Your task to perform on an android device: Go to internet settings Image 0: 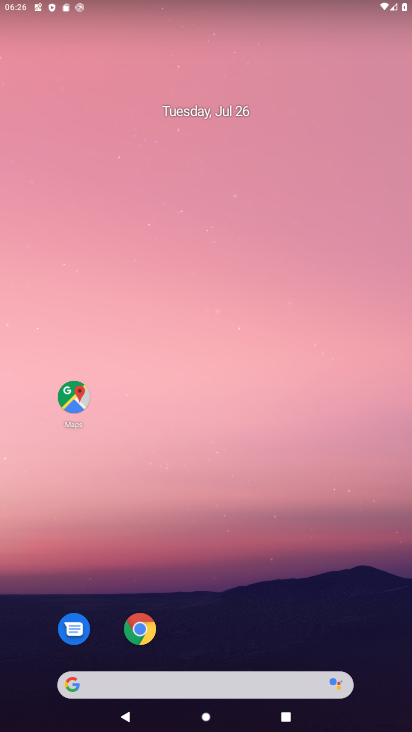
Step 0: drag from (188, 612) to (174, 19)
Your task to perform on an android device: Go to internet settings Image 1: 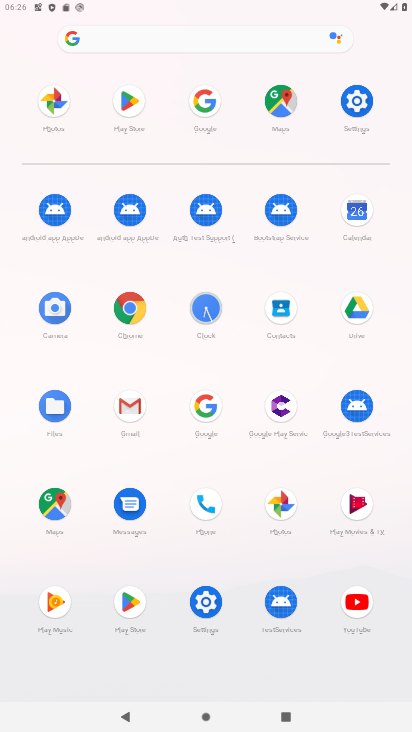
Step 1: click (352, 97)
Your task to perform on an android device: Go to internet settings Image 2: 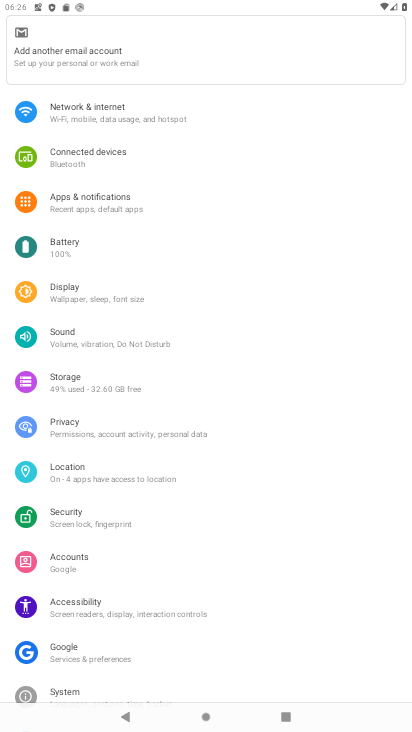
Step 2: click (83, 116)
Your task to perform on an android device: Go to internet settings Image 3: 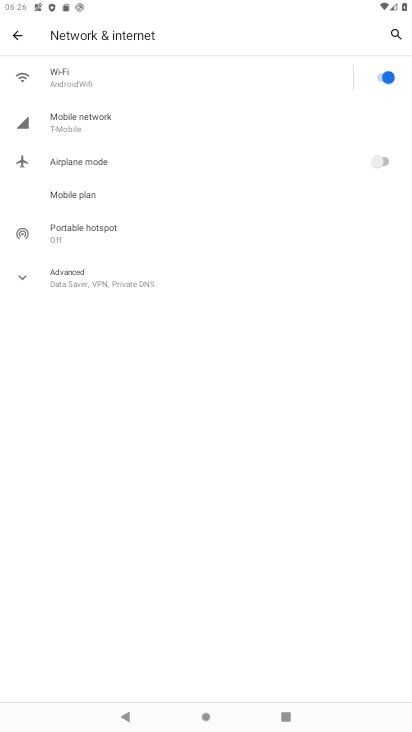
Step 3: task complete